Your task to perform on an android device: Open eBay Image 0: 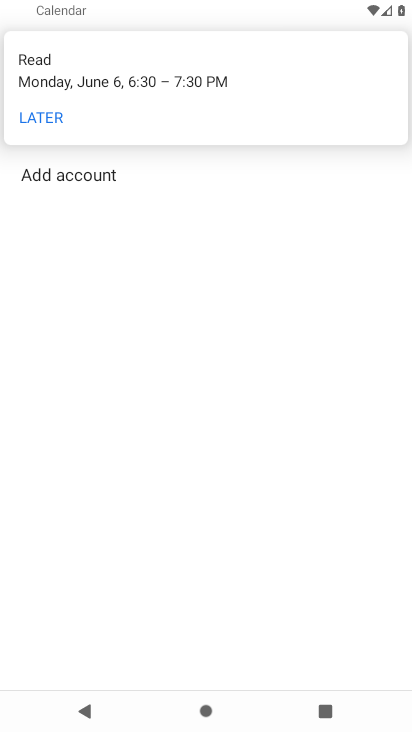
Step 0: press home button
Your task to perform on an android device: Open eBay Image 1: 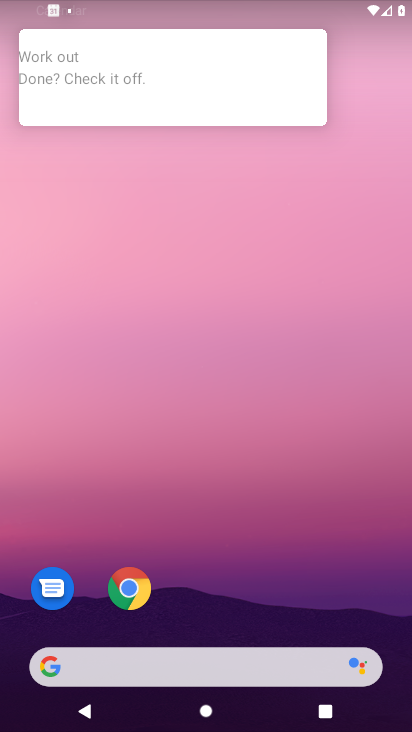
Step 1: click (132, 595)
Your task to perform on an android device: Open eBay Image 2: 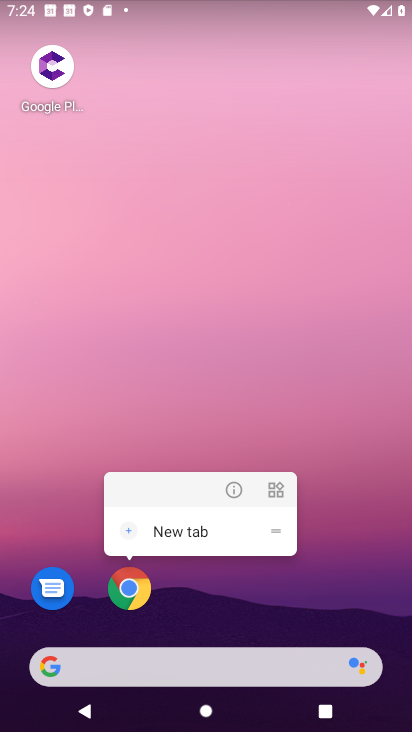
Step 2: click (132, 588)
Your task to perform on an android device: Open eBay Image 3: 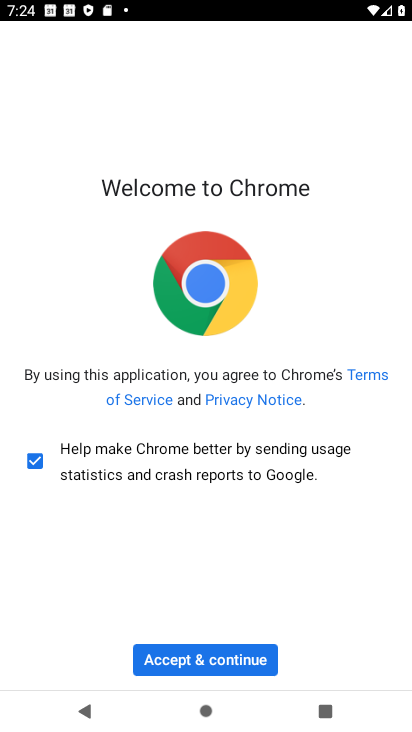
Step 3: click (211, 667)
Your task to perform on an android device: Open eBay Image 4: 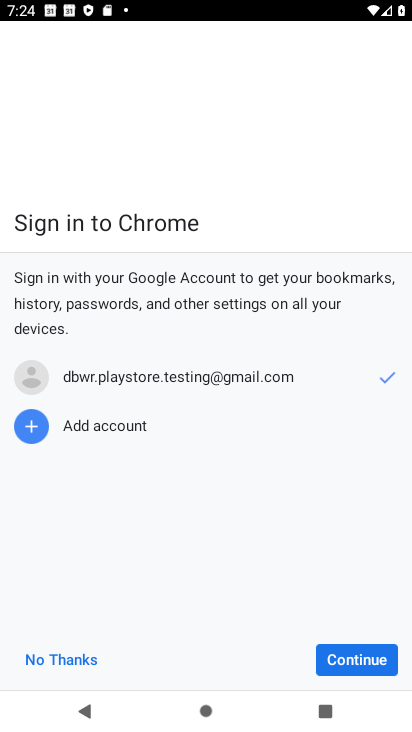
Step 4: click (336, 659)
Your task to perform on an android device: Open eBay Image 5: 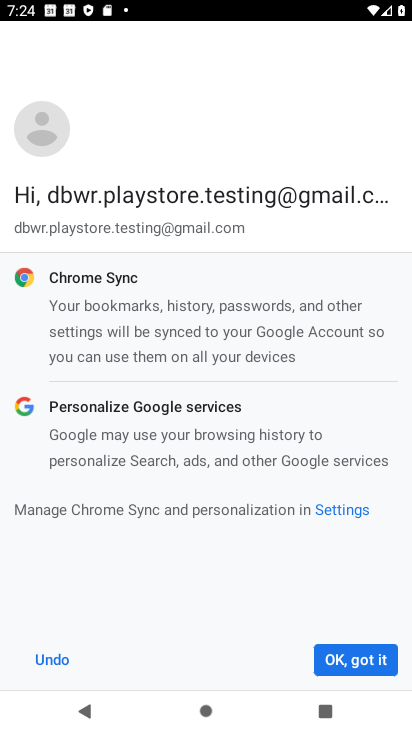
Step 5: click (332, 659)
Your task to perform on an android device: Open eBay Image 6: 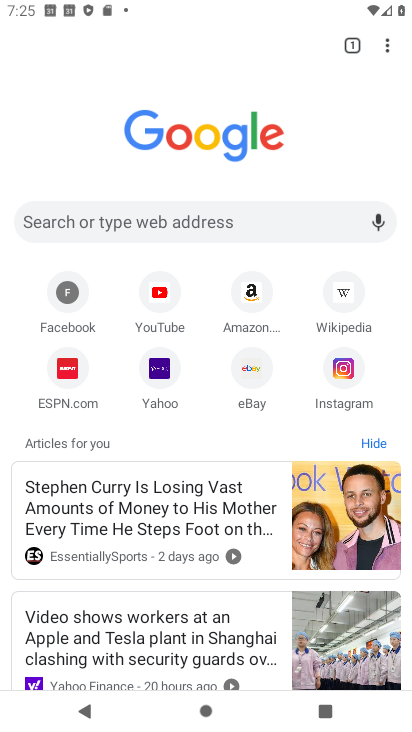
Step 6: click (252, 376)
Your task to perform on an android device: Open eBay Image 7: 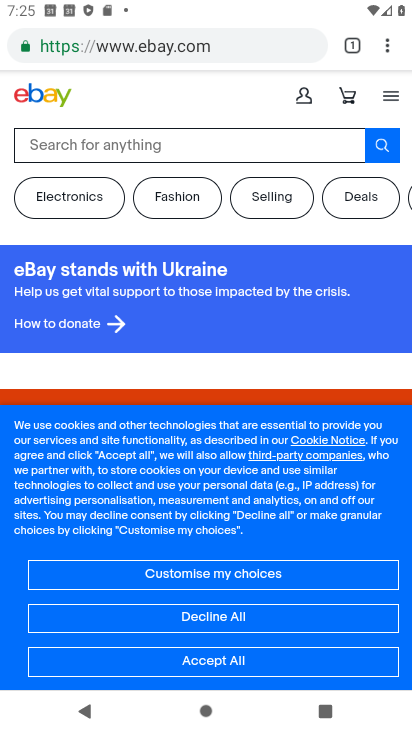
Step 7: task complete